Your task to perform on an android device: Open Google Maps Image 0: 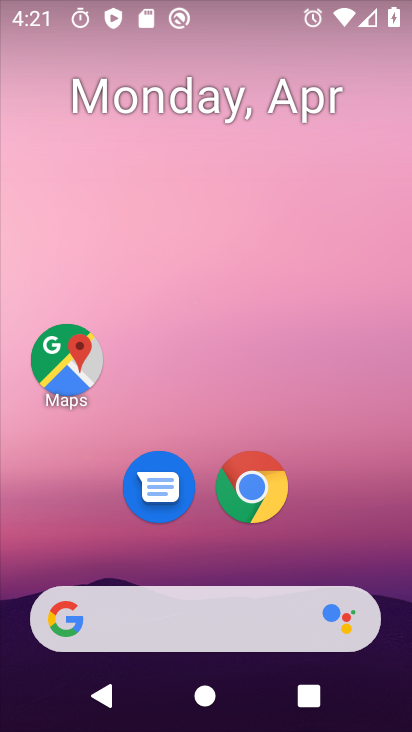
Step 0: drag from (355, 535) to (337, 64)
Your task to perform on an android device: Open Google Maps Image 1: 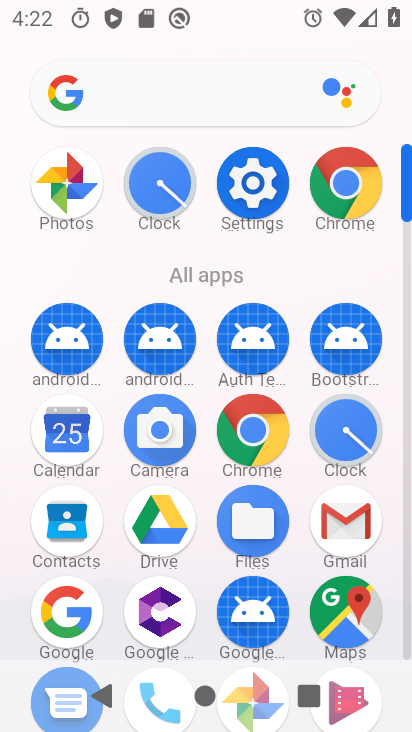
Step 1: click (356, 604)
Your task to perform on an android device: Open Google Maps Image 2: 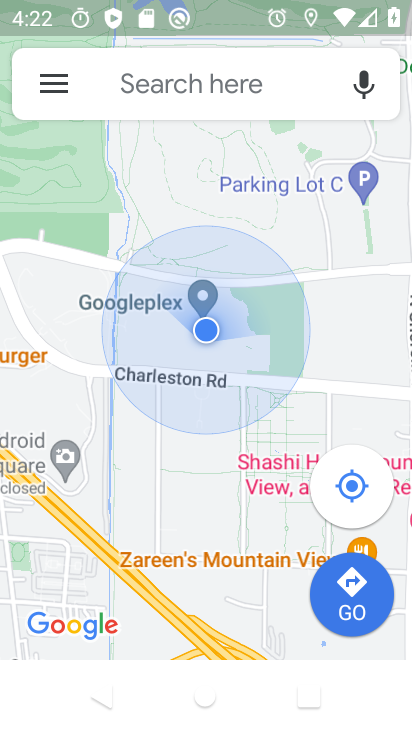
Step 2: task complete